Your task to perform on an android device: open app "Nova Launcher" Image 0: 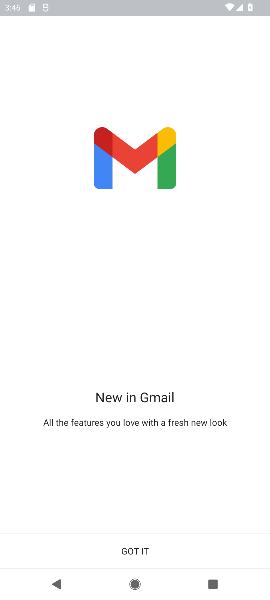
Step 0: press home button
Your task to perform on an android device: open app "Nova Launcher" Image 1: 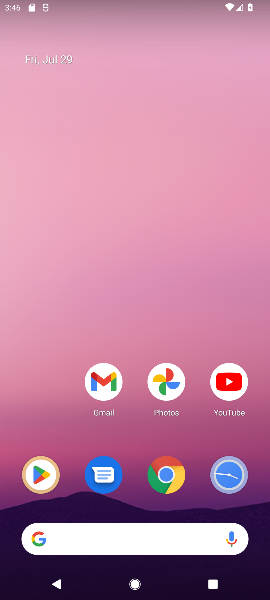
Step 1: click (35, 471)
Your task to perform on an android device: open app "Nova Launcher" Image 2: 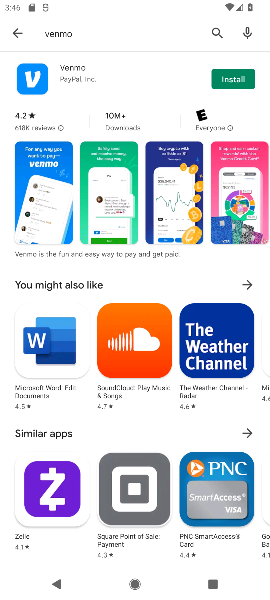
Step 2: click (13, 32)
Your task to perform on an android device: open app "Nova Launcher" Image 3: 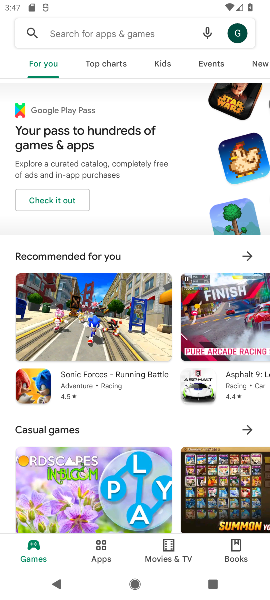
Step 3: type "Nova Launcher""
Your task to perform on an android device: open app "Nova Launcher" Image 4: 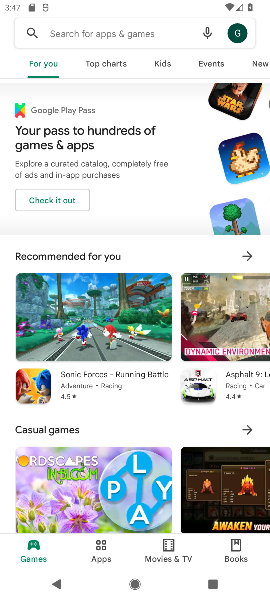
Step 4: click (86, 25)
Your task to perform on an android device: open app "Nova Launcher" Image 5: 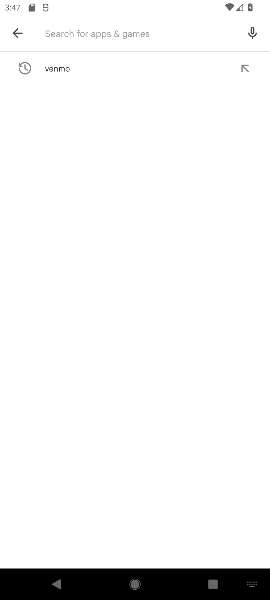
Step 5: type "Nova Launcher""
Your task to perform on an android device: open app "Nova Launcher" Image 6: 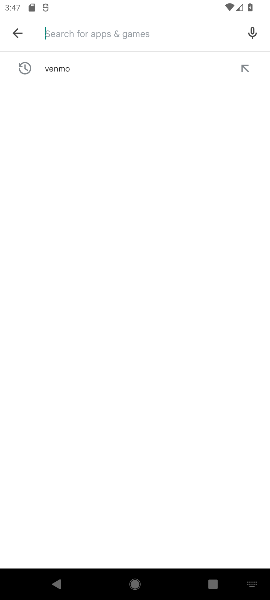
Step 6: type "Nova Launcher"
Your task to perform on an android device: open app "Nova Launcher" Image 7: 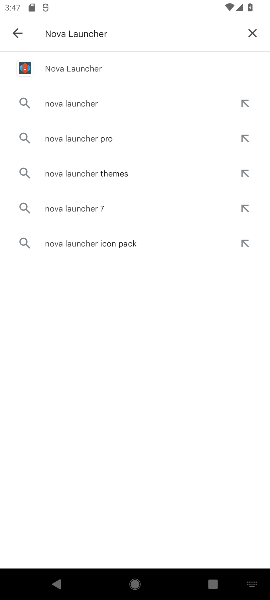
Step 7: click (81, 65)
Your task to perform on an android device: open app "Nova Launcher" Image 8: 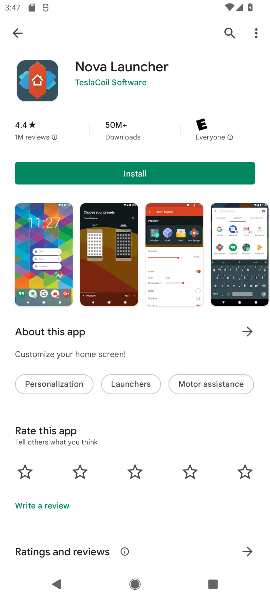
Step 8: task complete